Your task to perform on an android device: clear all cookies in the chrome app Image 0: 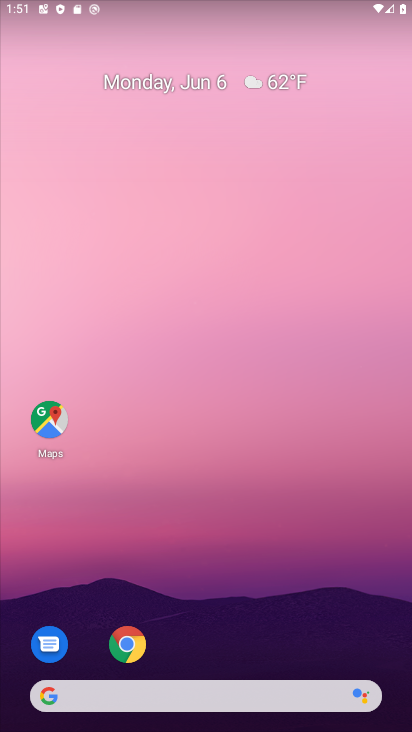
Step 0: click (140, 644)
Your task to perform on an android device: clear all cookies in the chrome app Image 1: 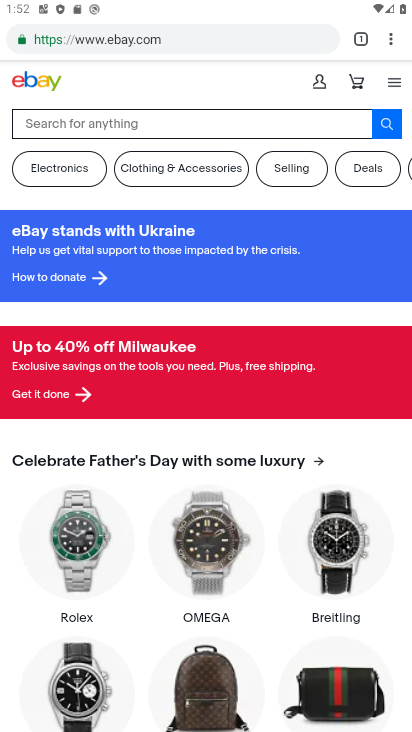
Step 1: click (394, 37)
Your task to perform on an android device: clear all cookies in the chrome app Image 2: 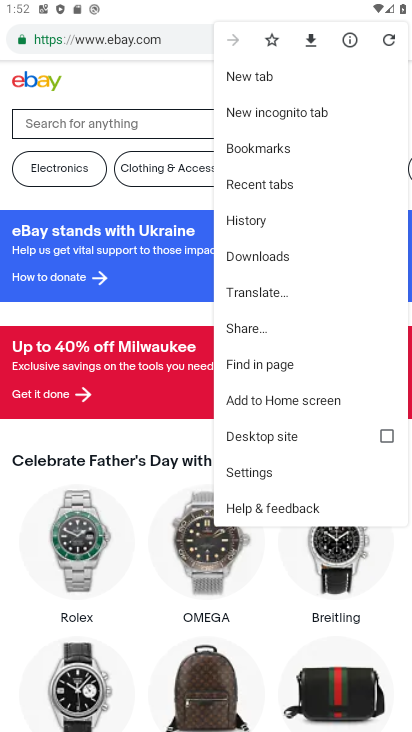
Step 2: click (267, 474)
Your task to perform on an android device: clear all cookies in the chrome app Image 3: 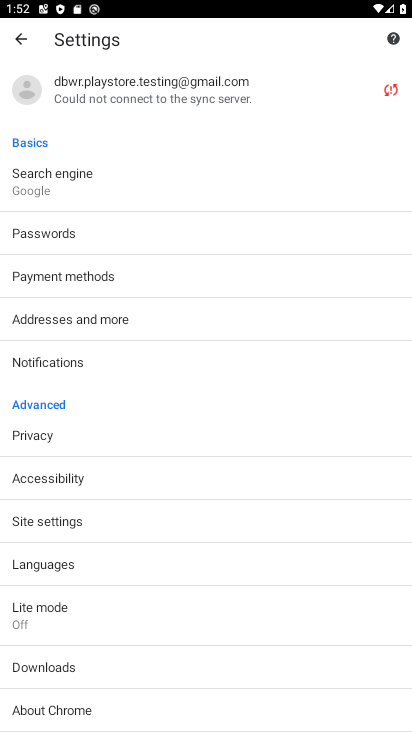
Step 3: click (0, 435)
Your task to perform on an android device: clear all cookies in the chrome app Image 4: 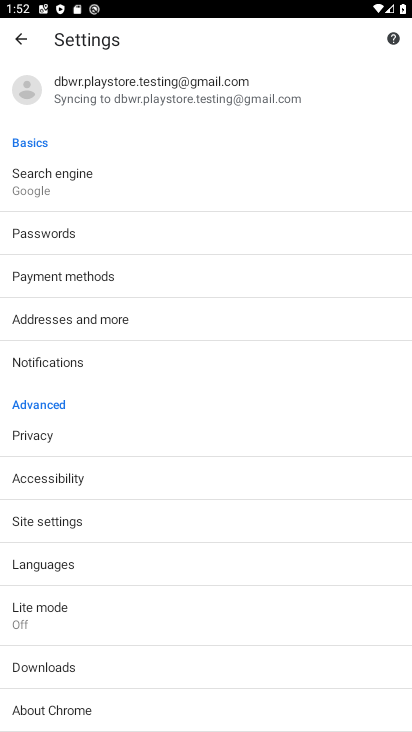
Step 4: click (54, 434)
Your task to perform on an android device: clear all cookies in the chrome app Image 5: 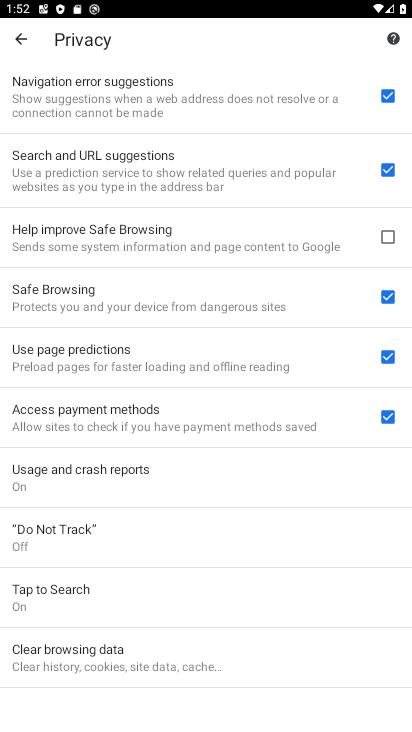
Step 5: drag from (182, 672) to (157, 333)
Your task to perform on an android device: clear all cookies in the chrome app Image 6: 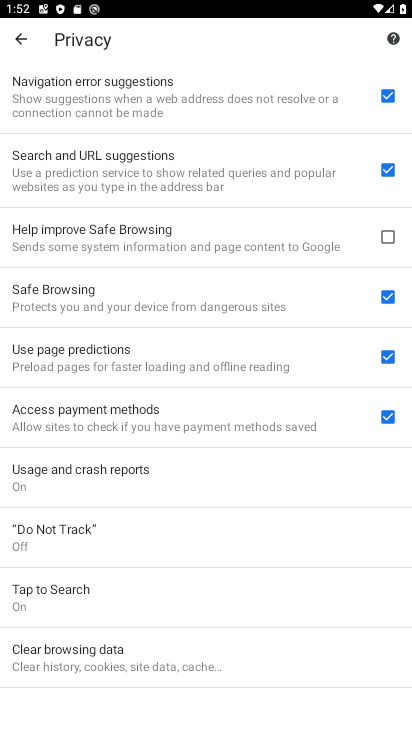
Step 6: click (104, 658)
Your task to perform on an android device: clear all cookies in the chrome app Image 7: 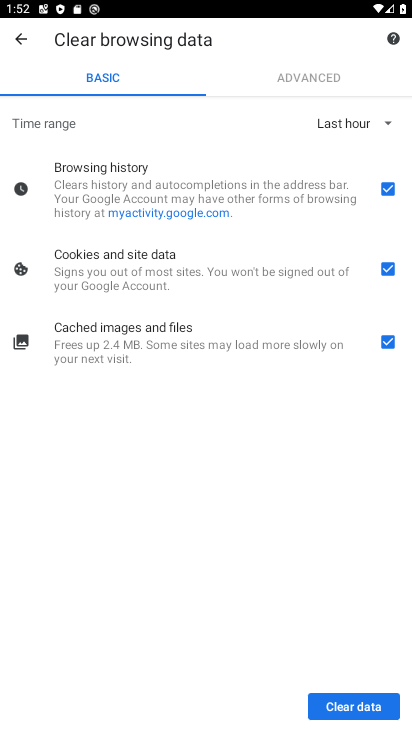
Step 7: click (388, 343)
Your task to perform on an android device: clear all cookies in the chrome app Image 8: 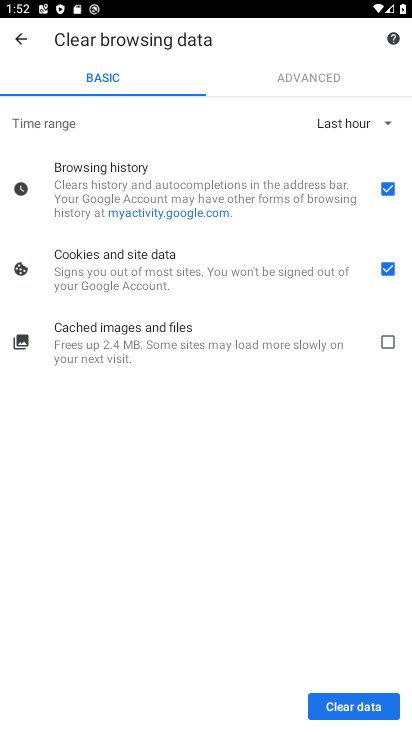
Step 8: click (392, 191)
Your task to perform on an android device: clear all cookies in the chrome app Image 9: 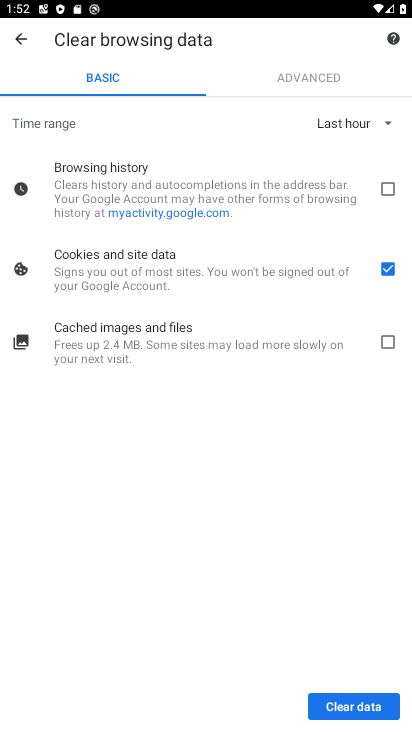
Step 9: click (386, 119)
Your task to perform on an android device: clear all cookies in the chrome app Image 10: 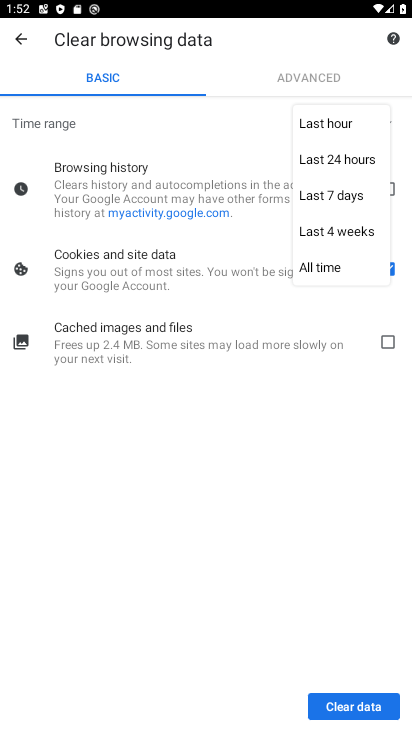
Step 10: click (327, 269)
Your task to perform on an android device: clear all cookies in the chrome app Image 11: 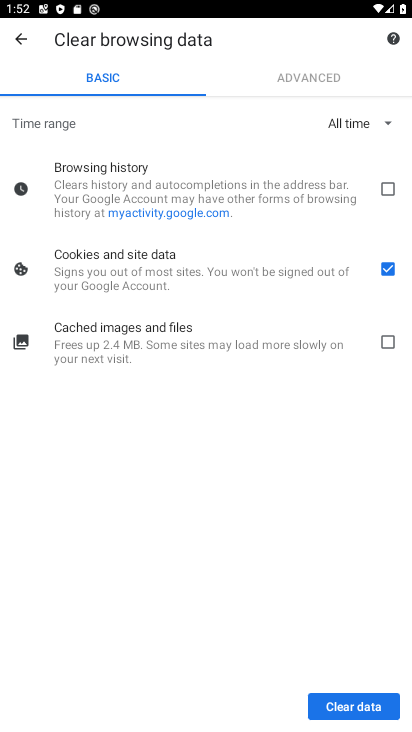
Step 11: click (358, 703)
Your task to perform on an android device: clear all cookies in the chrome app Image 12: 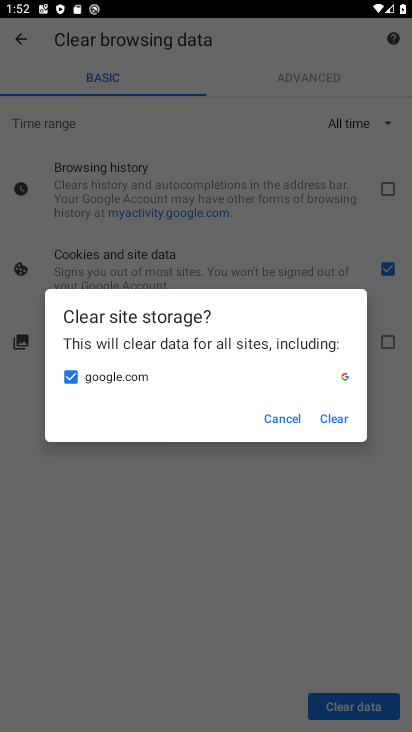
Step 12: click (335, 415)
Your task to perform on an android device: clear all cookies in the chrome app Image 13: 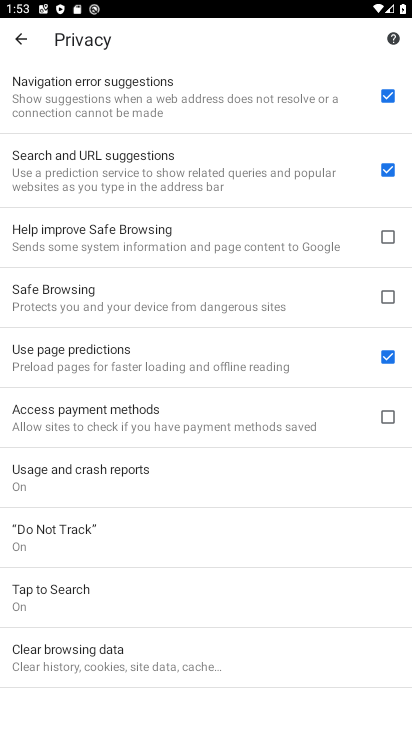
Step 13: task complete